Your task to perform on an android device: Toggle the flashlight Image 0: 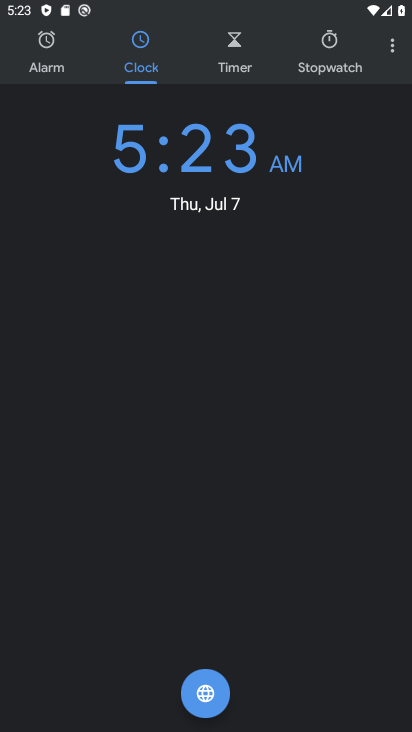
Step 0: press home button
Your task to perform on an android device: Toggle the flashlight Image 1: 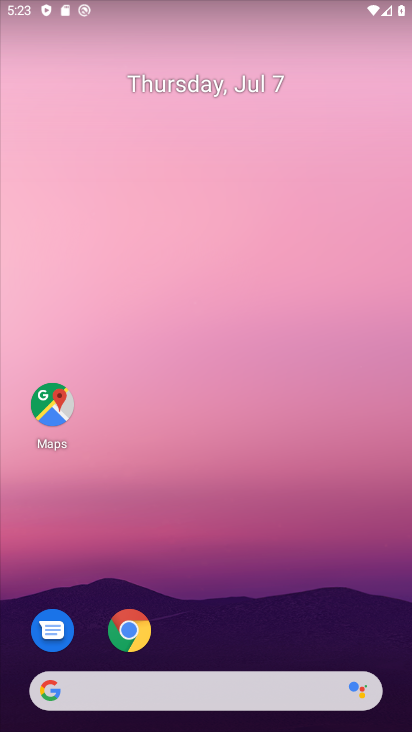
Step 1: task complete